Your task to perform on an android device: Go to display settings Image 0: 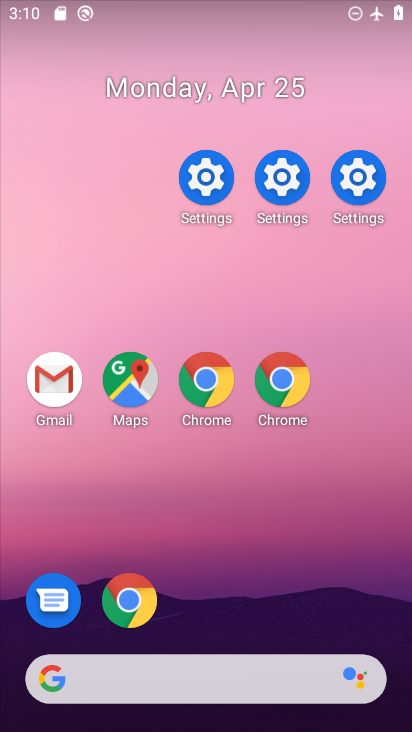
Step 0: drag from (222, 604) to (147, 24)
Your task to perform on an android device: Go to display settings Image 1: 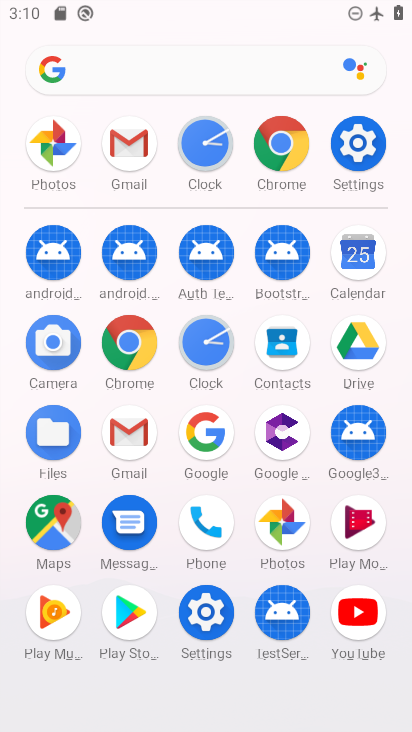
Step 1: click (358, 145)
Your task to perform on an android device: Go to display settings Image 2: 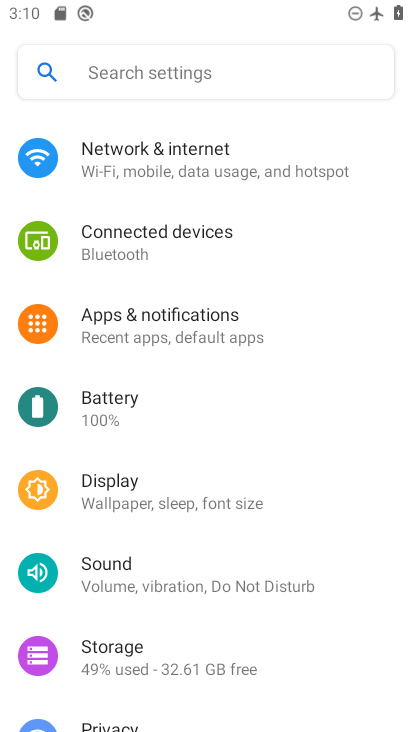
Step 2: click (115, 484)
Your task to perform on an android device: Go to display settings Image 3: 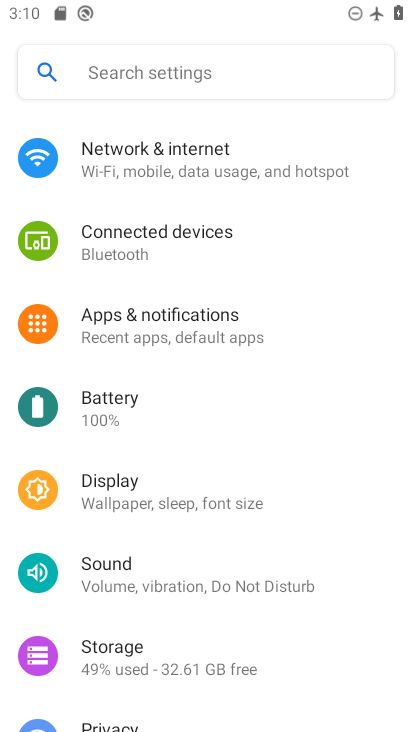
Step 3: click (110, 500)
Your task to perform on an android device: Go to display settings Image 4: 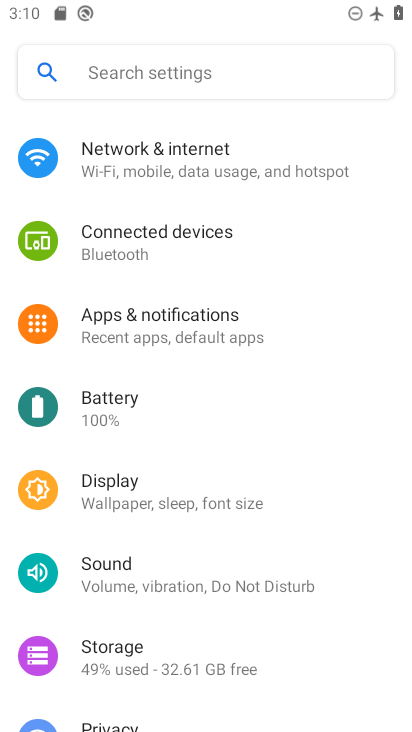
Step 4: task complete